Your task to perform on an android device: turn on javascript in the chrome app Image 0: 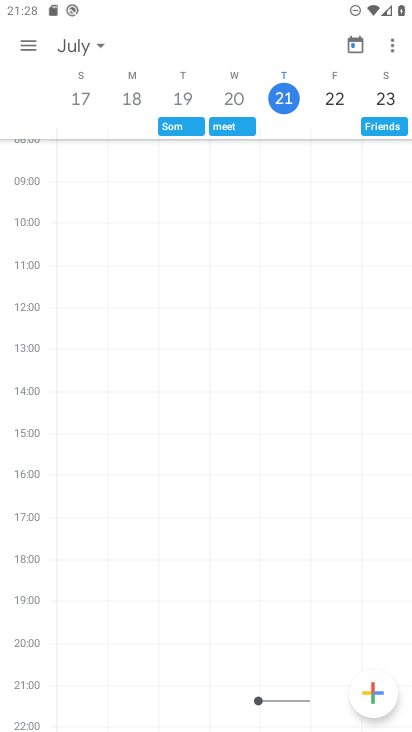
Step 0: drag from (323, 636) to (250, 82)
Your task to perform on an android device: turn on javascript in the chrome app Image 1: 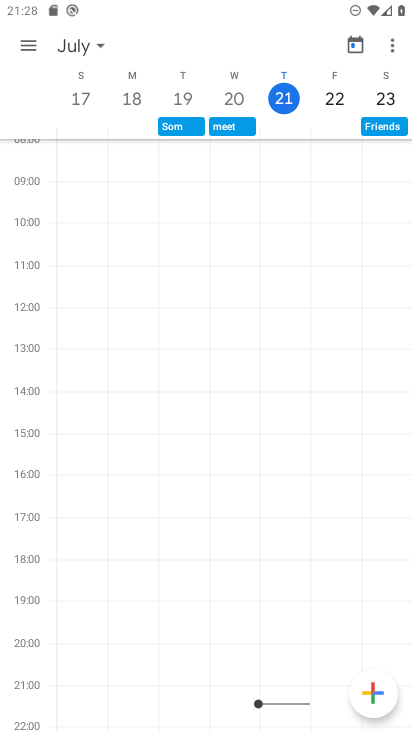
Step 1: press home button
Your task to perform on an android device: turn on javascript in the chrome app Image 2: 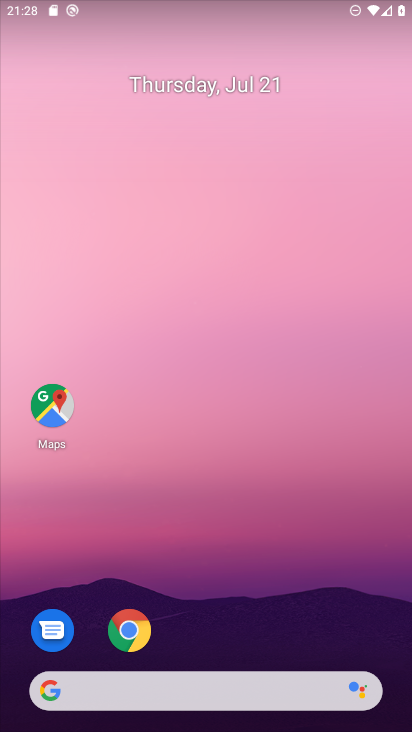
Step 2: drag from (275, 503) to (226, 92)
Your task to perform on an android device: turn on javascript in the chrome app Image 3: 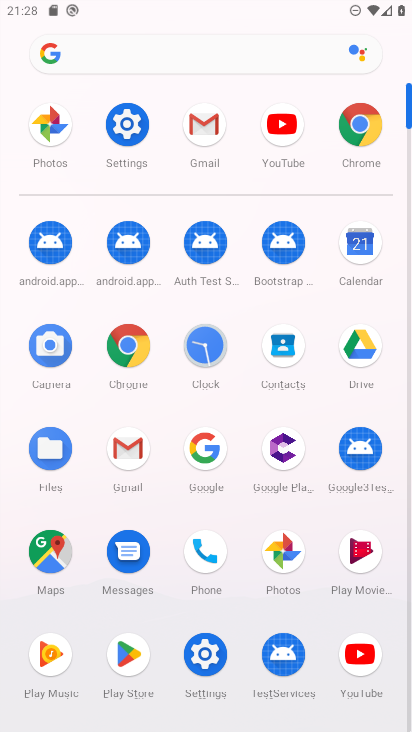
Step 3: click (123, 343)
Your task to perform on an android device: turn on javascript in the chrome app Image 4: 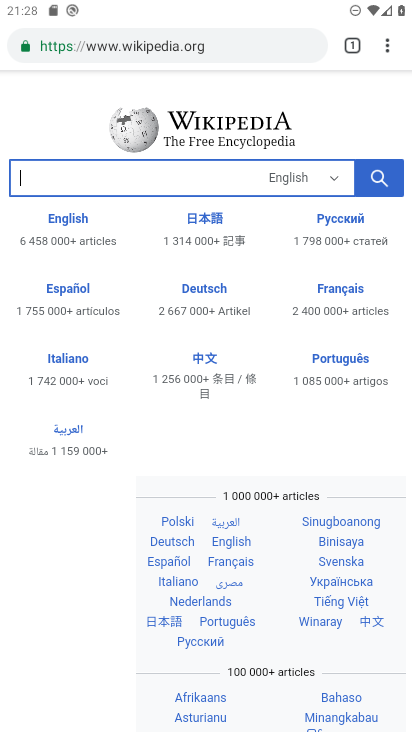
Step 4: drag from (385, 40) to (234, 607)
Your task to perform on an android device: turn on javascript in the chrome app Image 5: 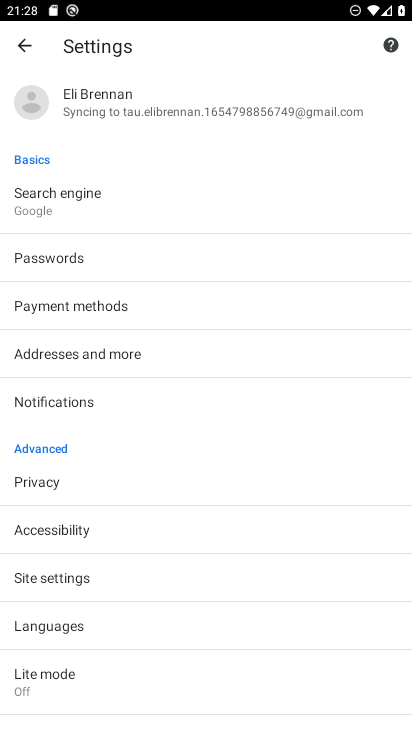
Step 5: click (71, 584)
Your task to perform on an android device: turn on javascript in the chrome app Image 6: 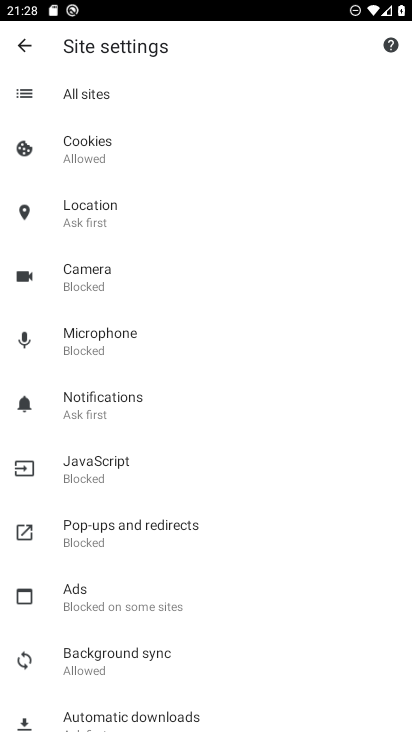
Step 6: click (83, 462)
Your task to perform on an android device: turn on javascript in the chrome app Image 7: 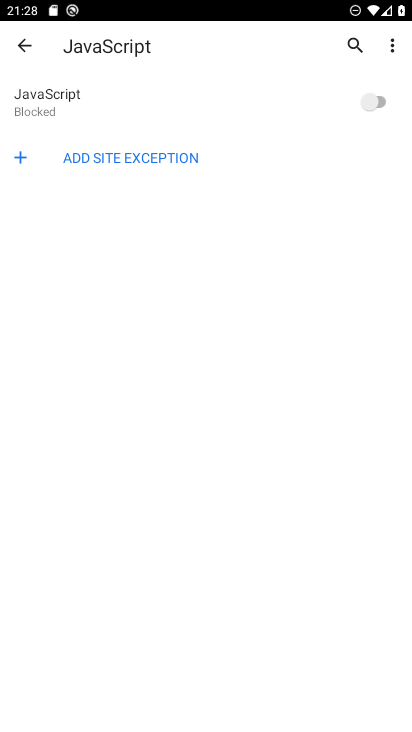
Step 7: click (372, 102)
Your task to perform on an android device: turn on javascript in the chrome app Image 8: 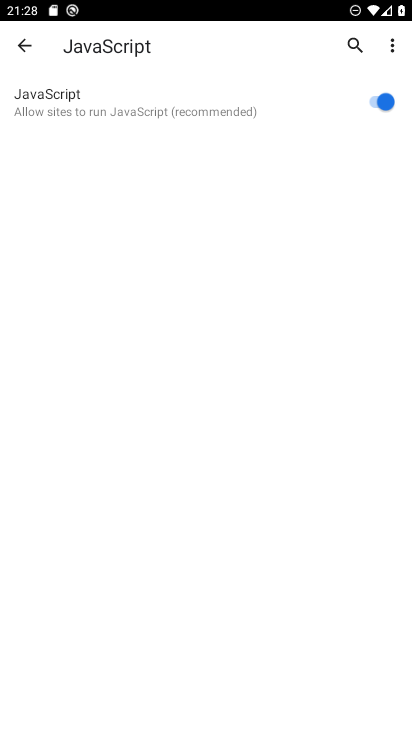
Step 8: task complete